Your task to perform on an android device: turn on location history Image 0: 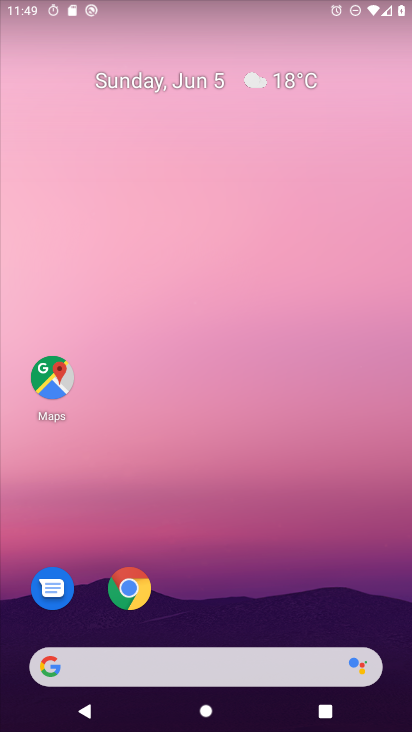
Step 0: drag from (368, 598) to (372, 210)
Your task to perform on an android device: turn on location history Image 1: 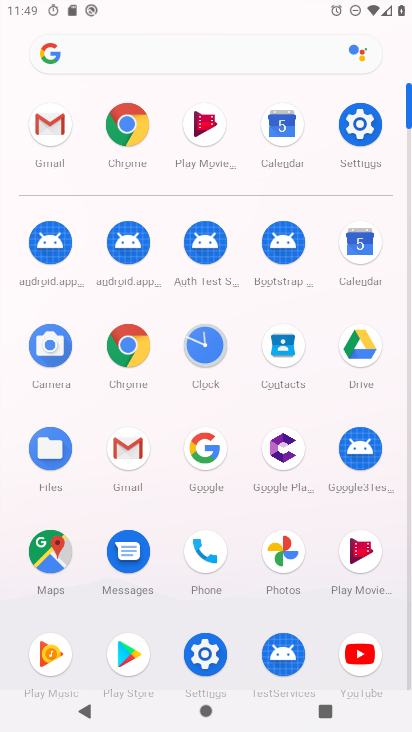
Step 1: click (378, 144)
Your task to perform on an android device: turn on location history Image 2: 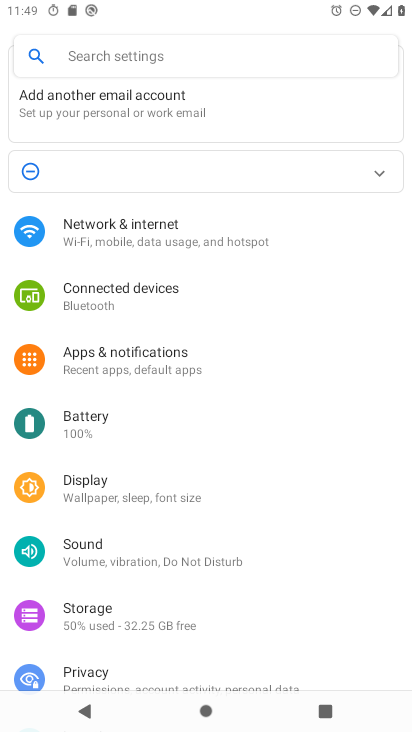
Step 2: drag from (340, 469) to (343, 364)
Your task to perform on an android device: turn on location history Image 3: 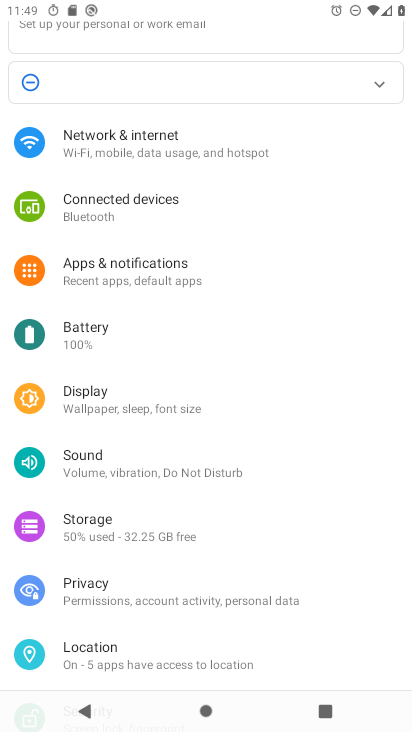
Step 3: drag from (326, 522) to (333, 436)
Your task to perform on an android device: turn on location history Image 4: 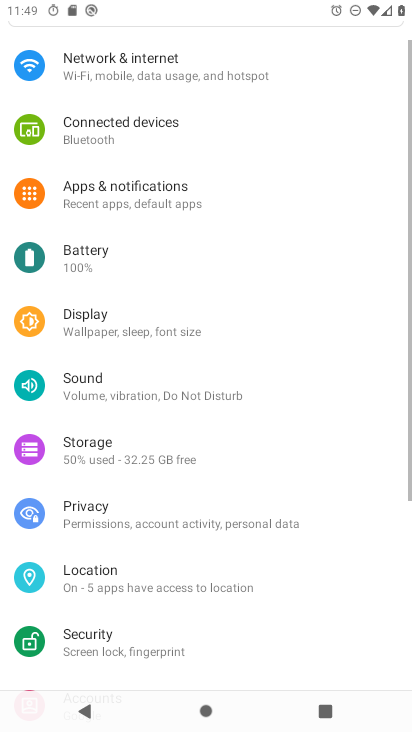
Step 4: drag from (336, 509) to (337, 341)
Your task to perform on an android device: turn on location history Image 5: 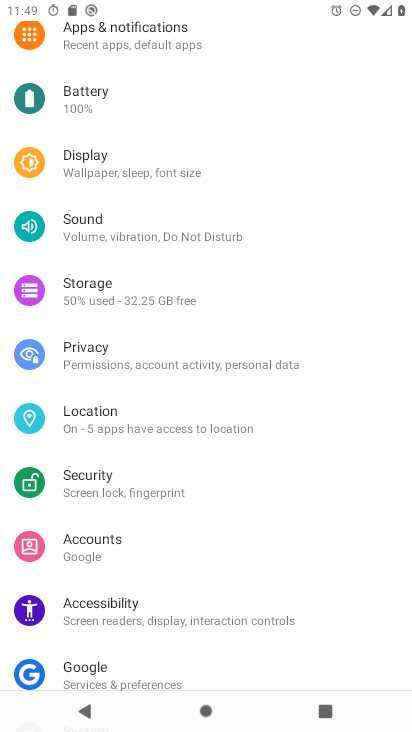
Step 5: drag from (343, 506) to (349, 360)
Your task to perform on an android device: turn on location history Image 6: 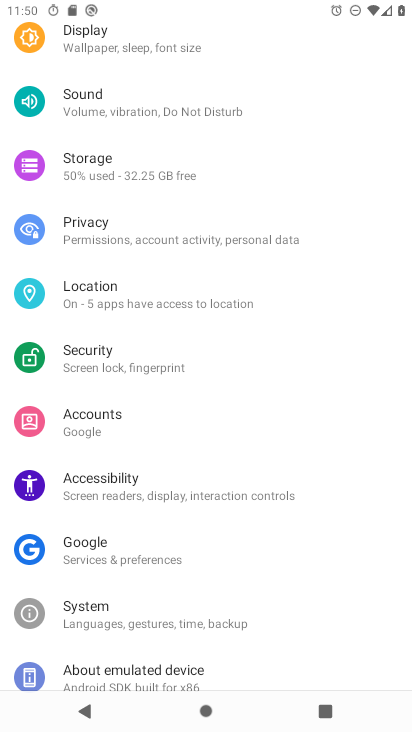
Step 6: click (238, 295)
Your task to perform on an android device: turn on location history Image 7: 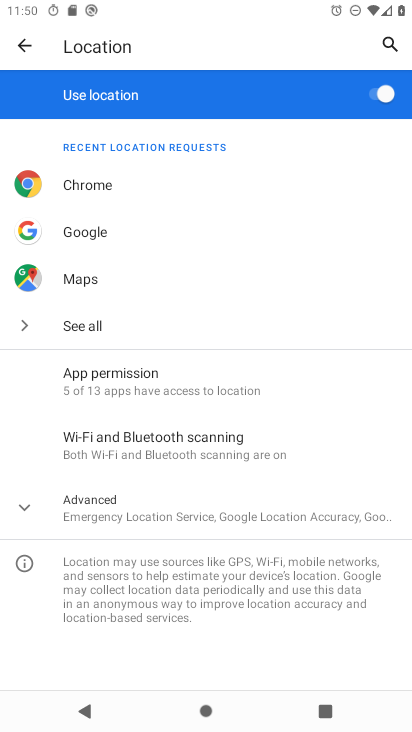
Step 7: click (280, 516)
Your task to perform on an android device: turn on location history Image 8: 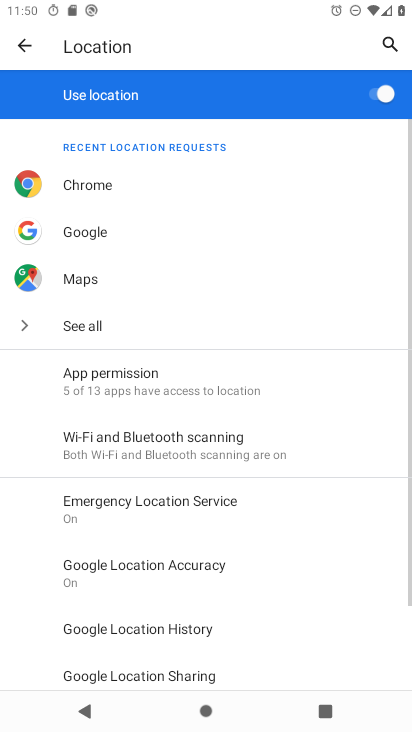
Step 8: drag from (299, 562) to (306, 476)
Your task to perform on an android device: turn on location history Image 9: 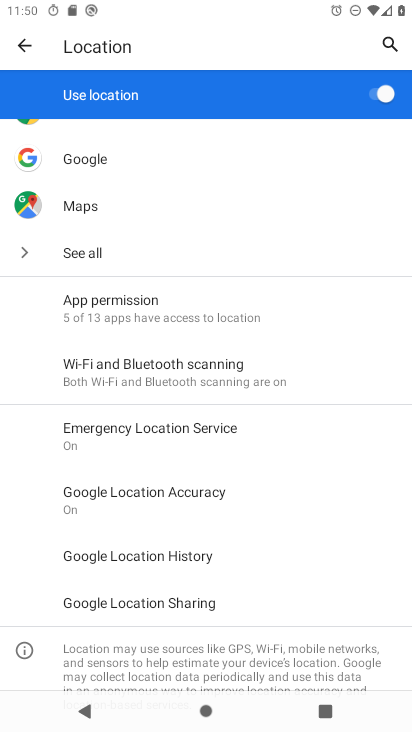
Step 9: drag from (311, 535) to (312, 434)
Your task to perform on an android device: turn on location history Image 10: 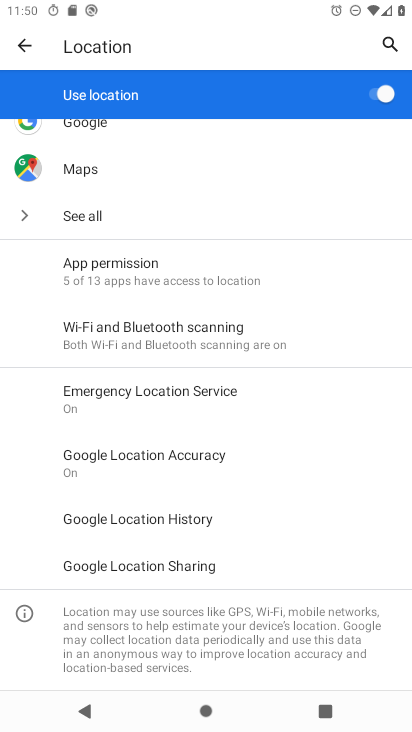
Step 10: click (212, 538)
Your task to perform on an android device: turn on location history Image 11: 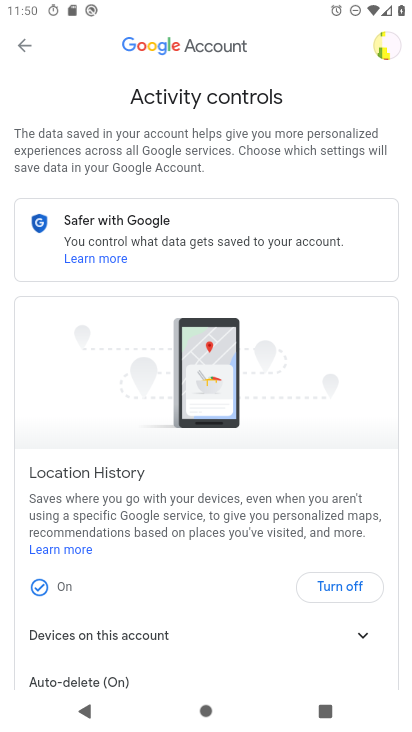
Step 11: task complete